Your task to perform on an android device: toggle data saver in the chrome app Image 0: 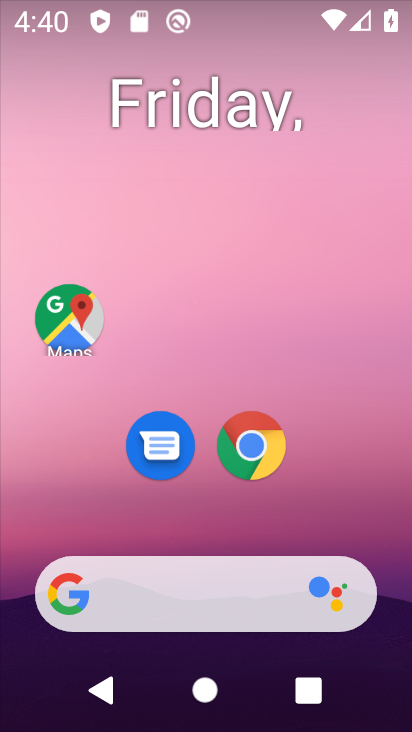
Step 0: click (262, 449)
Your task to perform on an android device: toggle data saver in the chrome app Image 1: 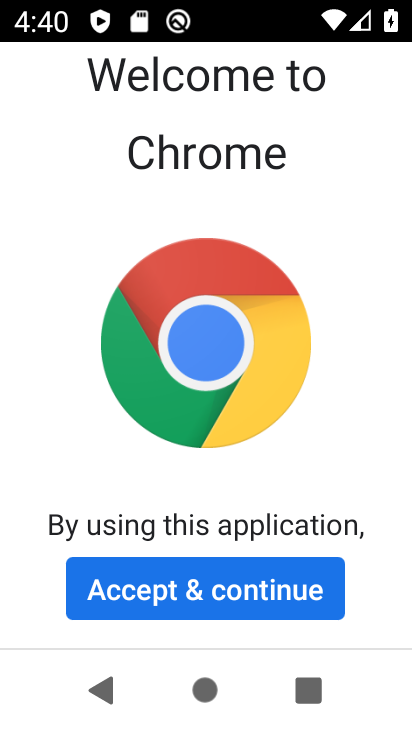
Step 1: click (243, 608)
Your task to perform on an android device: toggle data saver in the chrome app Image 2: 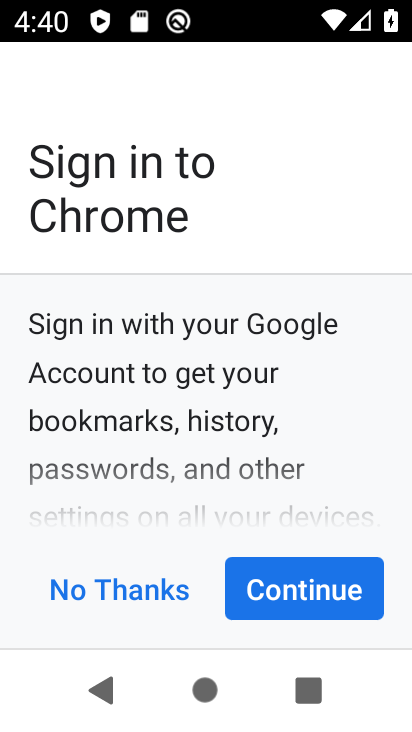
Step 2: click (243, 608)
Your task to perform on an android device: toggle data saver in the chrome app Image 3: 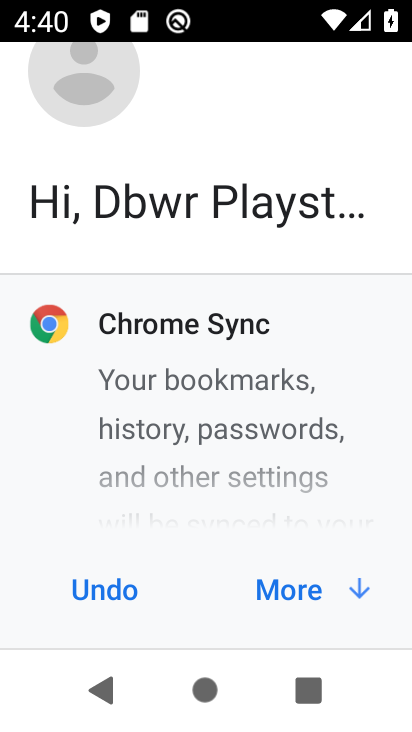
Step 3: click (243, 608)
Your task to perform on an android device: toggle data saver in the chrome app Image 4: 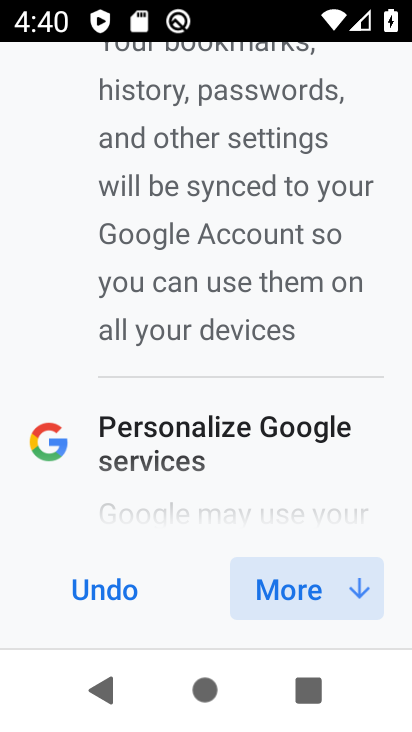
Step 4: click (243, 608)
Your task to perform on an android device: toggle data saver in the chrome app Image 5: 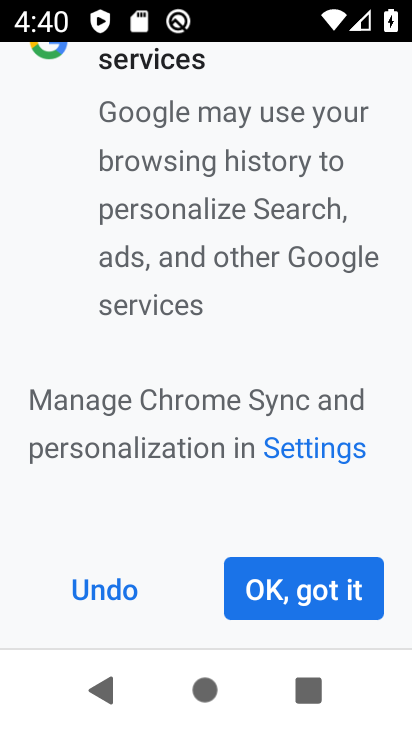
Step 5: click (243, 608)
Your task to perform on an android device: toggle data saver in the chrome app Image 6: 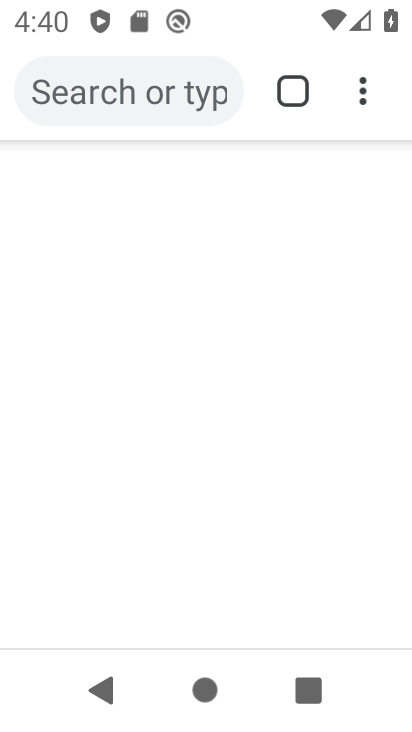
Step 6: click (371, 86)
Your task to perform on an android device: toggle data saver in the chrome app Image 7: 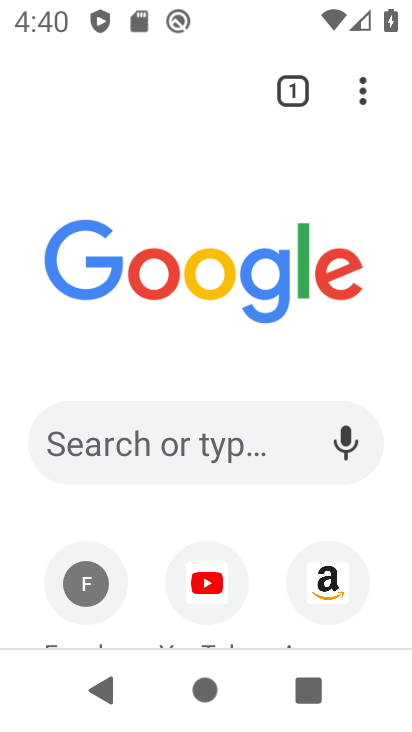
Step 7: click (359, 92)
Your task to perform on an android device: toggle data saver in the chrome app Image 8: 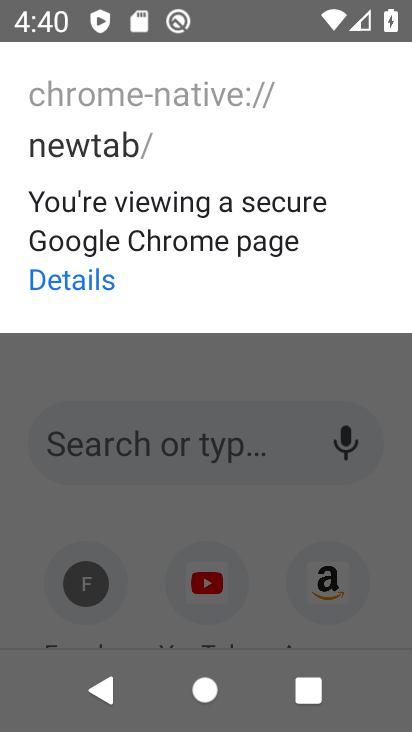
Step 8: task complete